Your task to perform on an android device: turn off priority inbox in the gmail app Image 0: 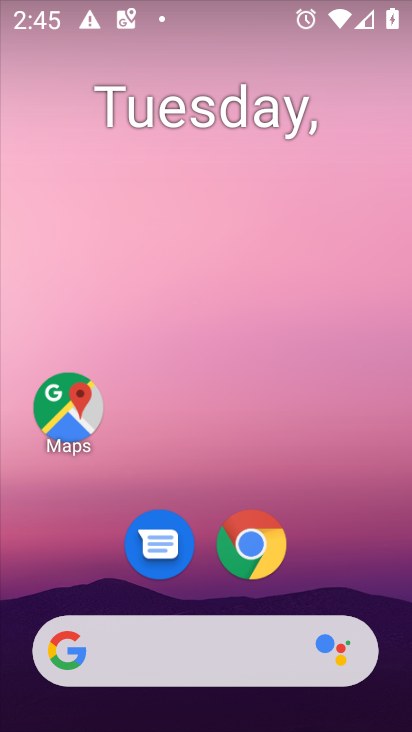
Step 0: drag from (337, 493) to (272, 74)
Your task to perform on an android device: turn off priority inbox in the gmail app Image 1: 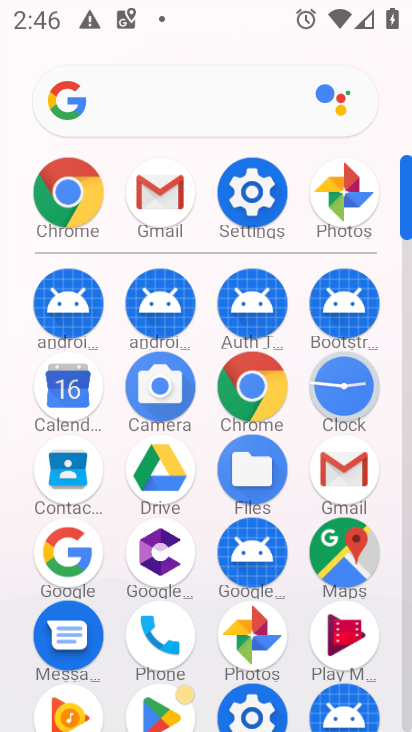
Step 1: click (343, 484)
Your task to perform on an android device: turn off priority inbox in the gmail app Image 2: 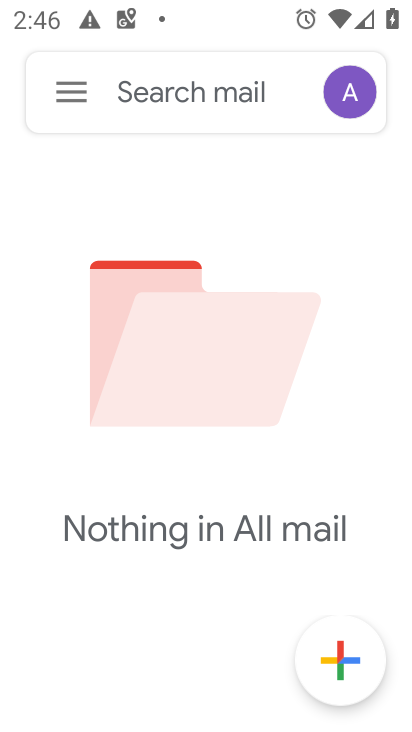
Step 2: click (85, 90)
Your task to perform on an android device: turn off priority inbox in the gmail app Image 3: 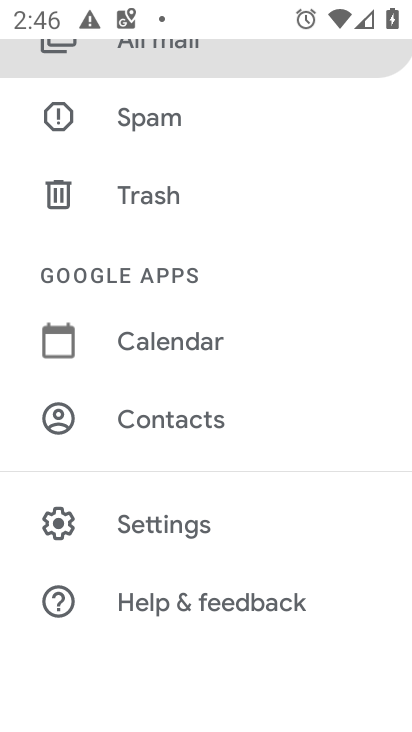
Step 3: click (175, 519)
Your task to perform on an android device: turn off priority inbox in the gmail app Image 4: 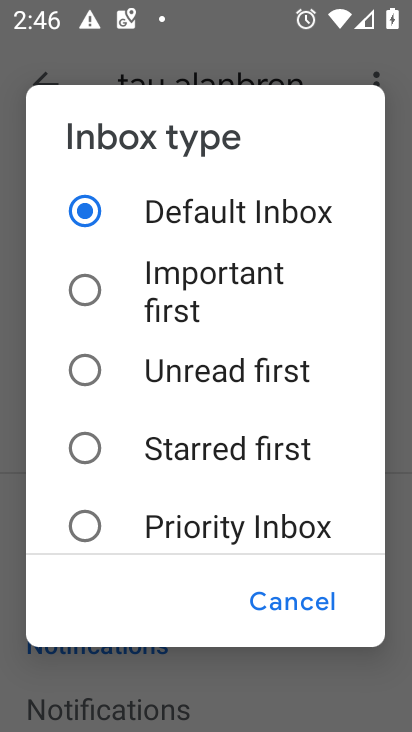
Step 4: task complete